Your task to perform on an android device: toggle sleep mode Image 0: 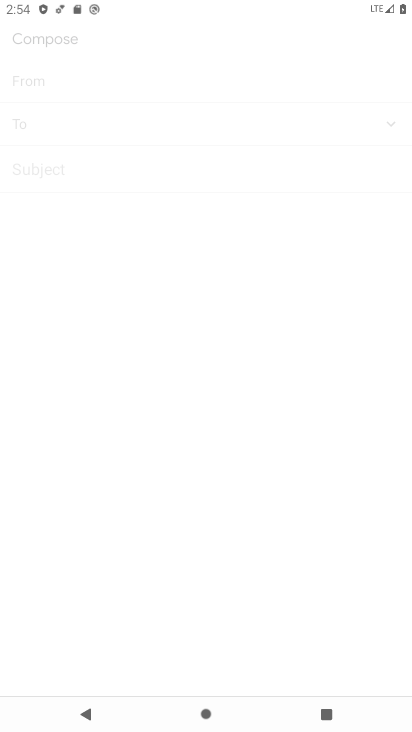
Step 0: drag from (266, 619) to (256, 18)
Your task to perform on an android device: toggle sleep mode Image 1: 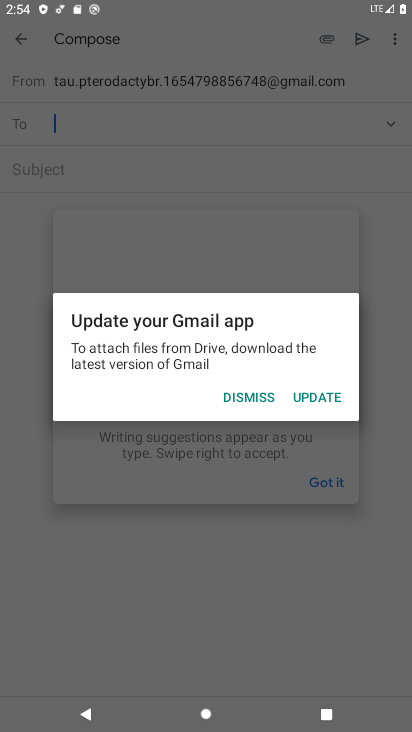
Step 1: press home button
Your task to perform on an android device: toggle sleep mode Image 2: 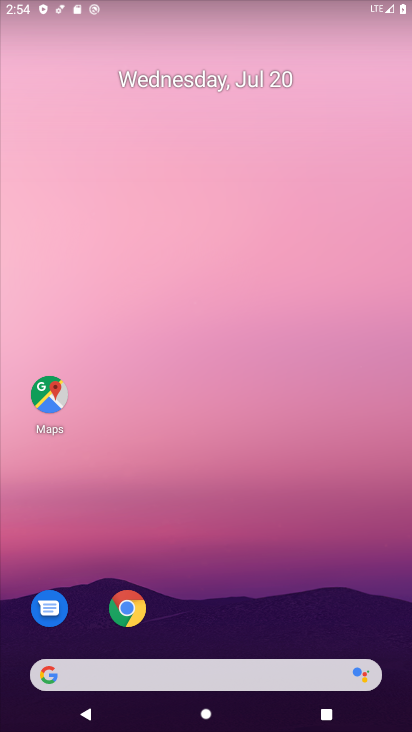
Step 2: drag from (396, 599) to (346, 63)
Your task to perform on an android device: toggle sleep mode Image 3: 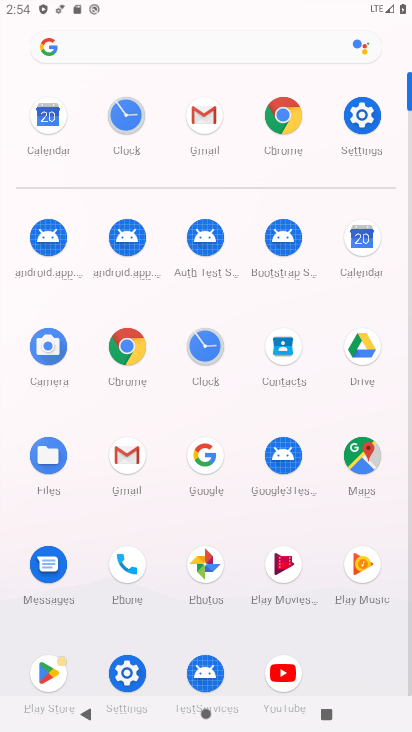
Step 3: click (353, 106)
Your task to perform on an android device: toggle sleep mode Image 4: 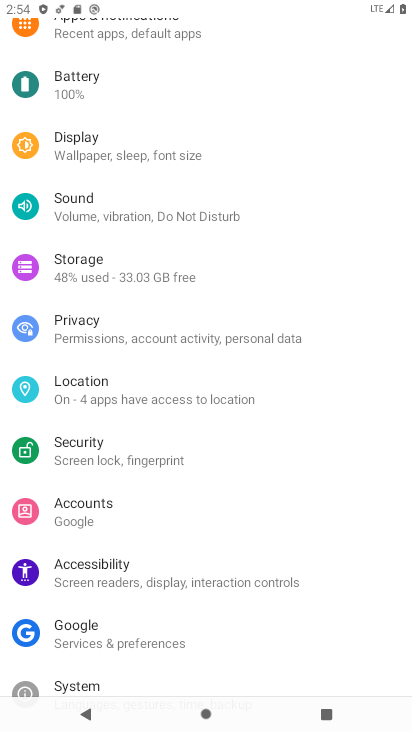
Step 4: click (107, 157)
Your task to perform on an android device: toggle sleep mode Image 5: 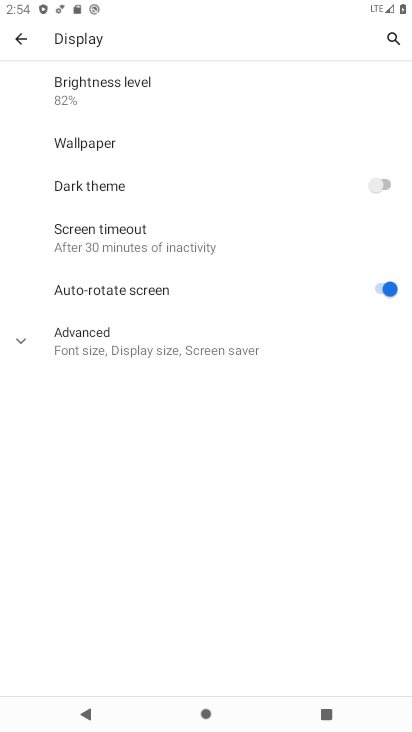
Step 5: click (118, 234)
Your task to perform on an android device: toggle sleep mode Image 6: 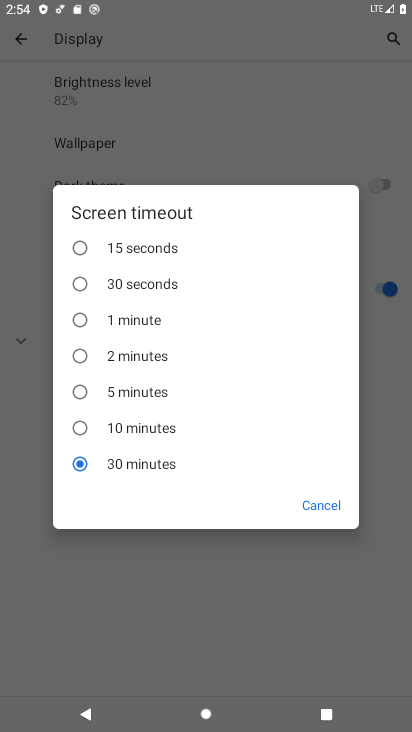
Step 6: click (120, 425)
Your task to perform on an android device: toggle sleep mode Image 7: 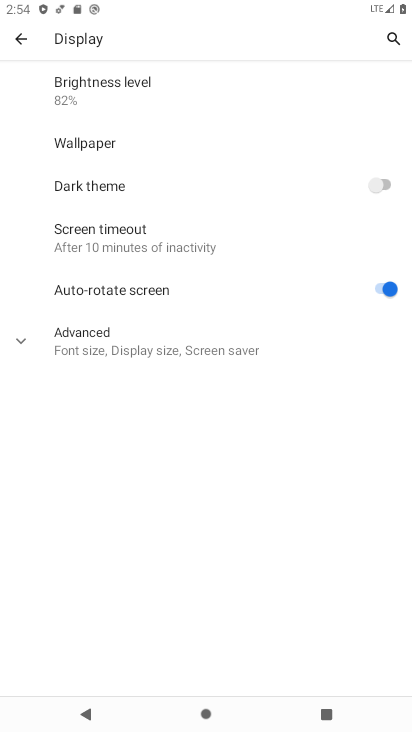
Step 7: task complete